Your task to perform on an android device: Search for logitech g502 on target, select the first entry, and add it to the cart. Image 0: 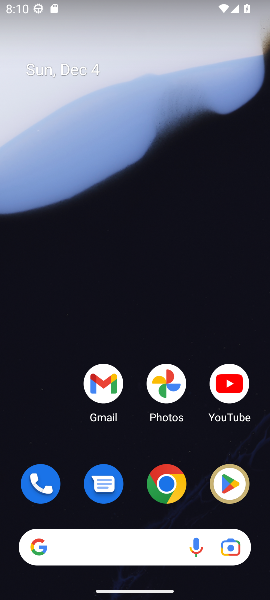
Step 0: click (168, 486)
Your task to perform on an android device: Search for logitech g502 on target, select the first entry, and add it to the cart. Image 1: 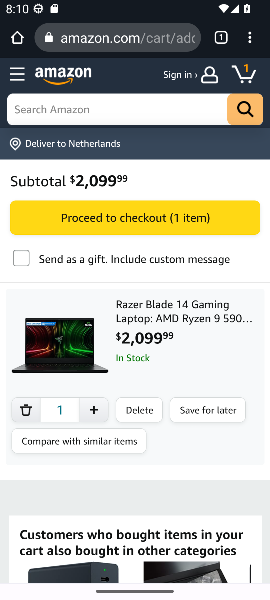
Step 1: click (112, 41)
Your task to perform on an android device: Search for logitech g502 on target, select the first entry, and add it to the cart. Image 2: 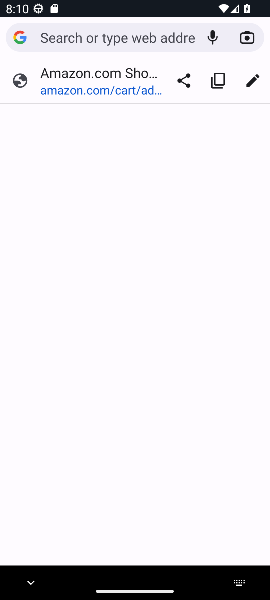
Step 2: type "target.com"
Your task to perform on an android device: Search for logitech g502 on target, select the first entry, and add it to the cart. Image 3: 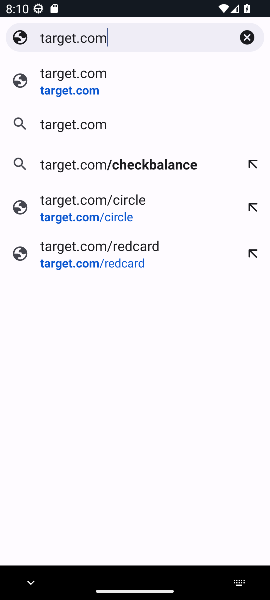
Step 3: click (43, 75)
Your task to perform on an android device: Search for logitech g502 on target, select the first entry, and add it to the cart. Image 4: 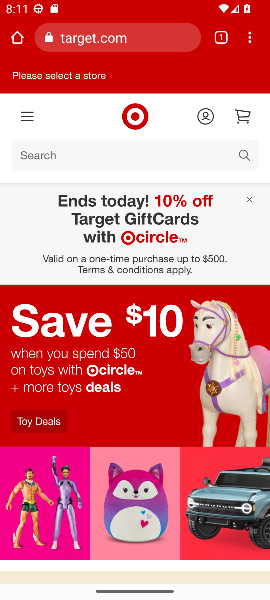
Step 4: click (33, 162)
Your task to perform on an android device: Search for logitech g502 on target, select the first entry, and add it to the cart. Image 5: 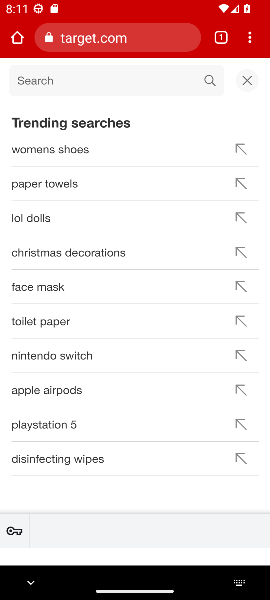
Step 5: type "logitech g502 "
Your task to perform on an android device: Search for logitech g502 on target, select the first entry, and add it to the cart. Image 6: 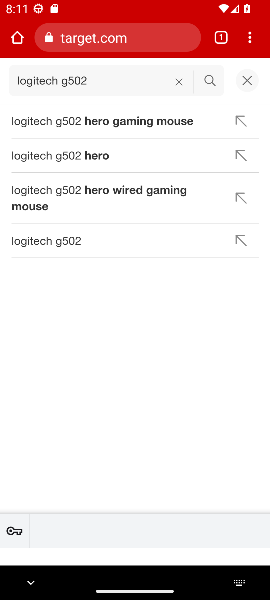
Step 6: click (60, 248)
Your task to perform on an android device: Search for logitech g502 on target, select the first entry, and add it to the cart. Image 7: 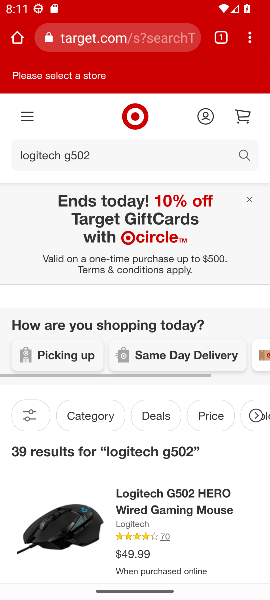
Step 7: drag from (131, 493) to (120, 311)
Your task to perform on an android device: Search for logitech g502 on target, select the first entry, and add it to the cart. Image 8: 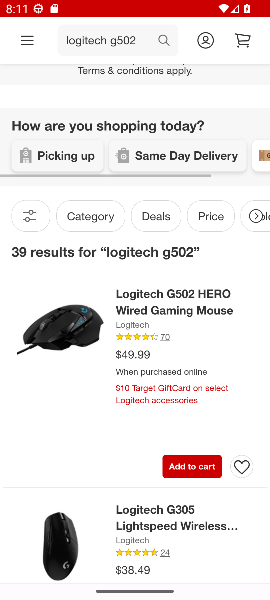
Step 8: click (188, 466)
Your task to perform on an android device: Search for logitech g502 on target, select the first entry, and add it to the cart. Image 9: 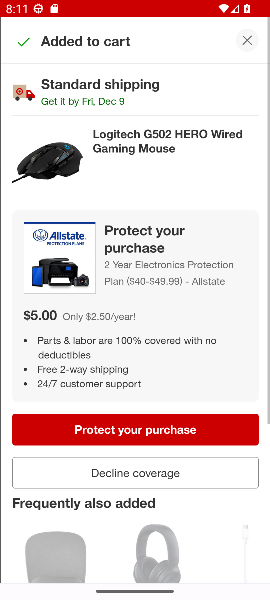
Step 9: task complete